Your task to perform on an android device: Go to network settings Image 0: 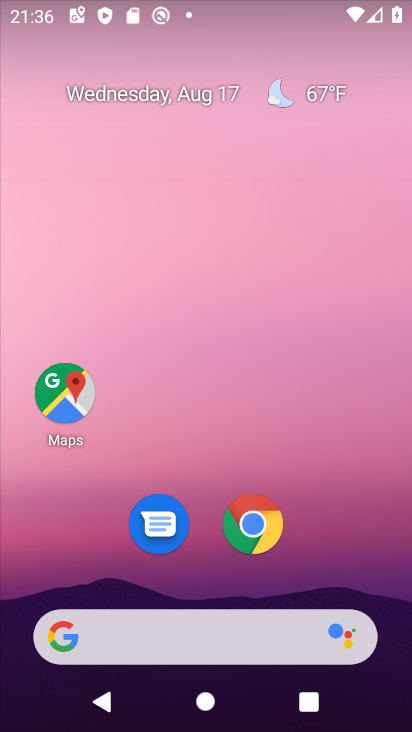
Step 0: drag from (318, 521) to (341, 10)
Your task to perform on an android device: Go to network settings Image 1: 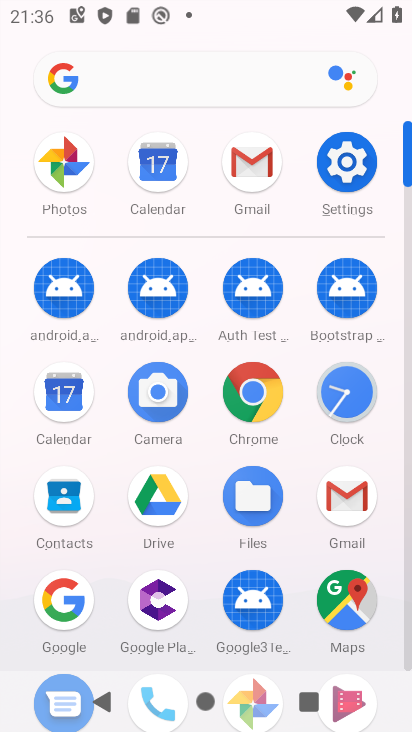
Step 1: click (350, 169)
Your task to perform on an android device: Go to network settings Image 2: 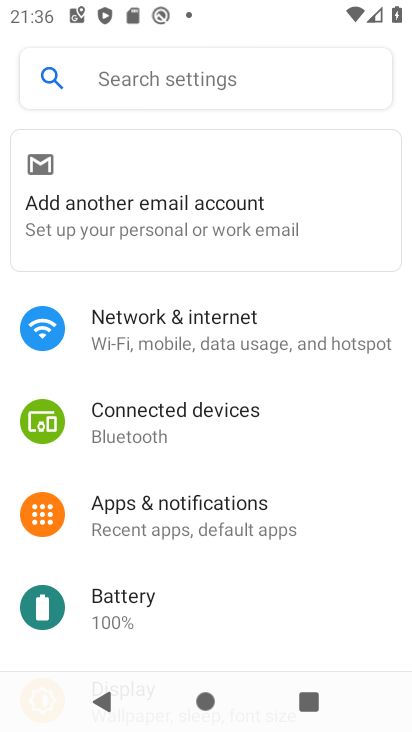
Step 2: click (250, 333)
Your task to perform on an android device: Go to network settings Image 3: 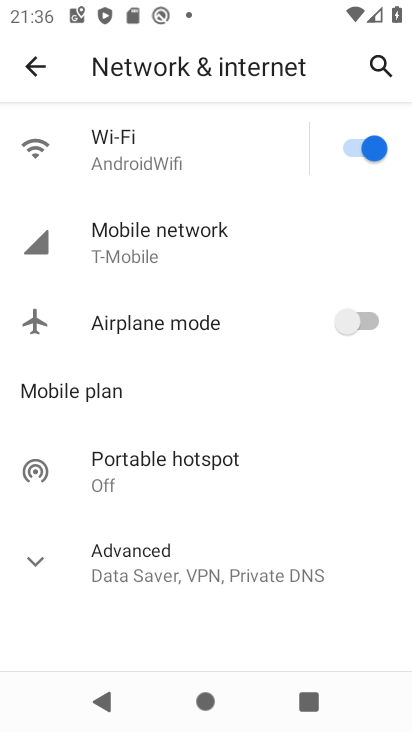
Step 3: task complete